Your task to perform on an android device: open wifi settings Image 0: 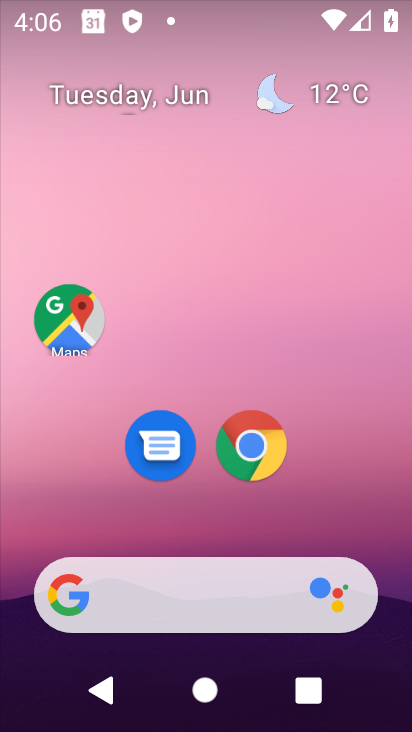
Step 0: drag from (346, 483) to (410, 31)
Your task to perform on an android device: open wifi settings Image 1: 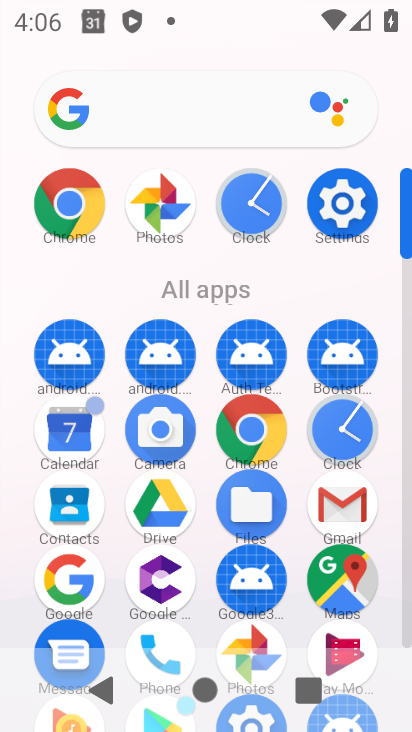
Step 1: click (340, 209)
Your task to perform on an android device: open wifi settings Image 2: 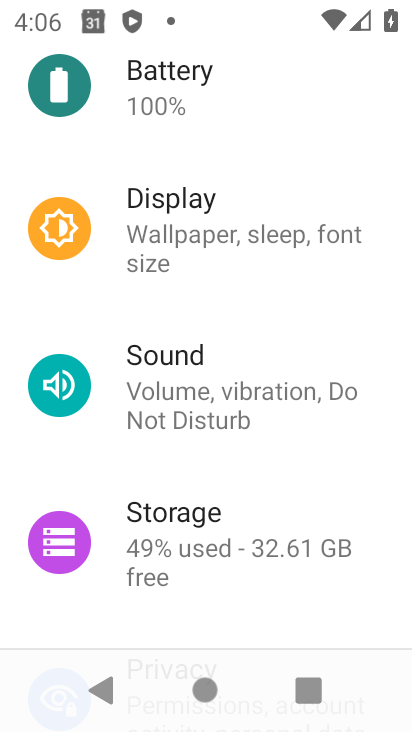
Step 2: drag from (261, 184) to (221, 591)
Your task to perform on an android device: open wifi settings Image 3: 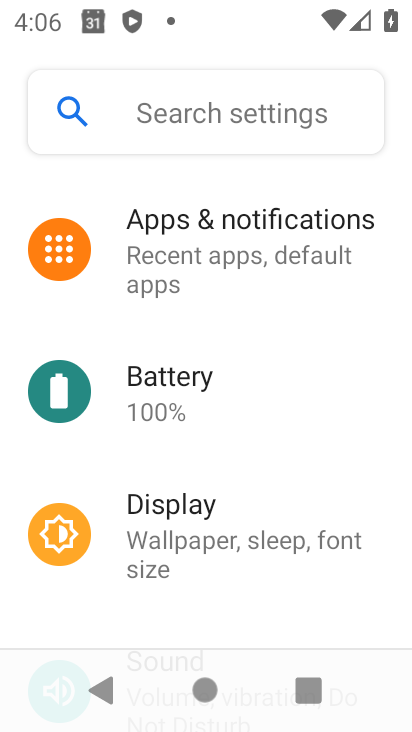
Step 3: drag from (292, 133) to (251, 574)
Your task to perform on an android device: open wifi settings Image 4: 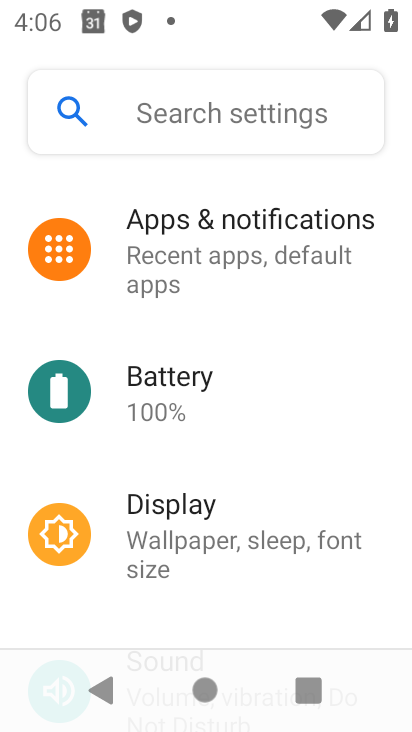
Step 4: drag from (192, 256) to (222, 562)
Your task to perform on an android device: open wifi settings Image 5: 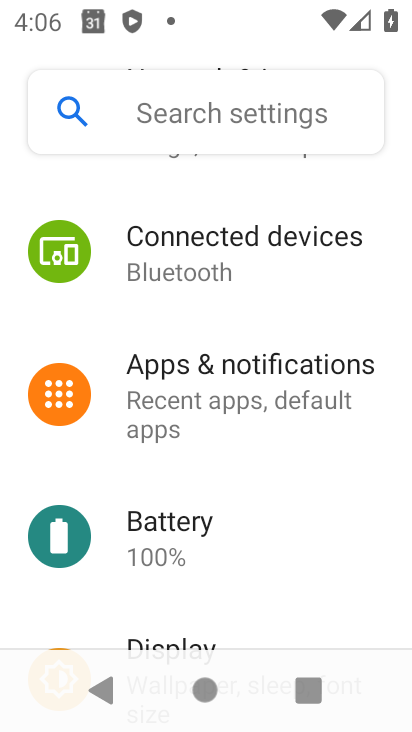
Step 5: drag from (199, 281) to (210, 590)
Your task to perform on an android device: open wifi settings Image 6: 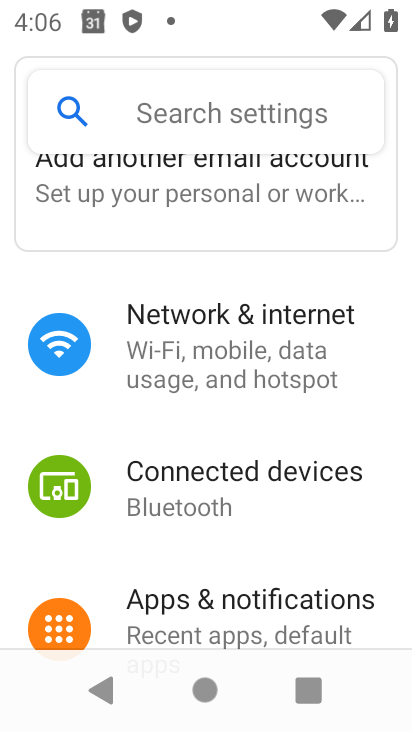
Step 6: click (180, 304)
Your task to perform on an android device: open wifi settings Image 7: 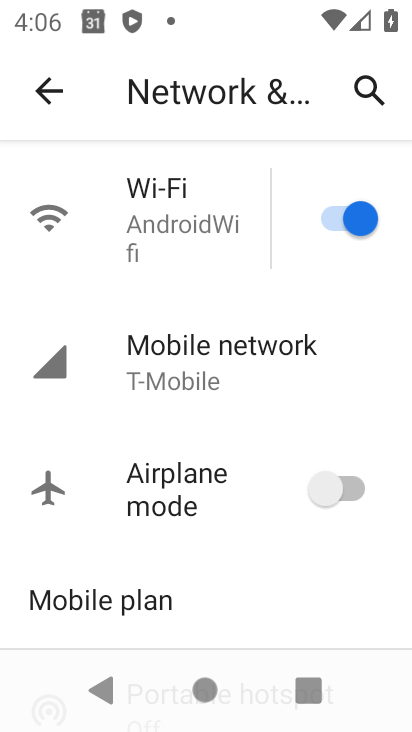
Step 7: click (216, 246)
Your task to perform on an android device: open wifi settings Image 8: 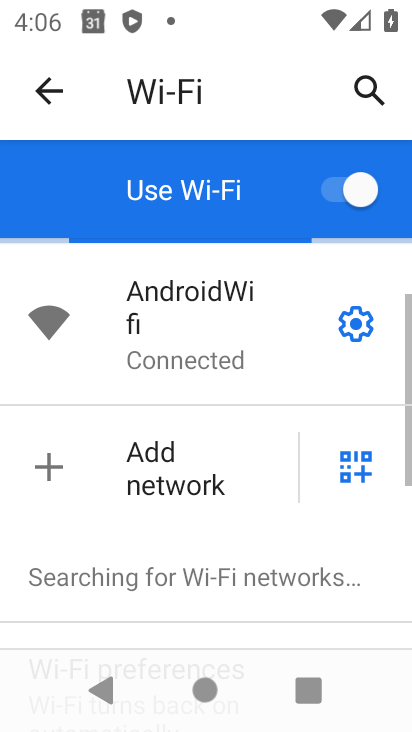
Step 8: task complete